Your task to perform on an android device: Go to wifi settings Image 0: 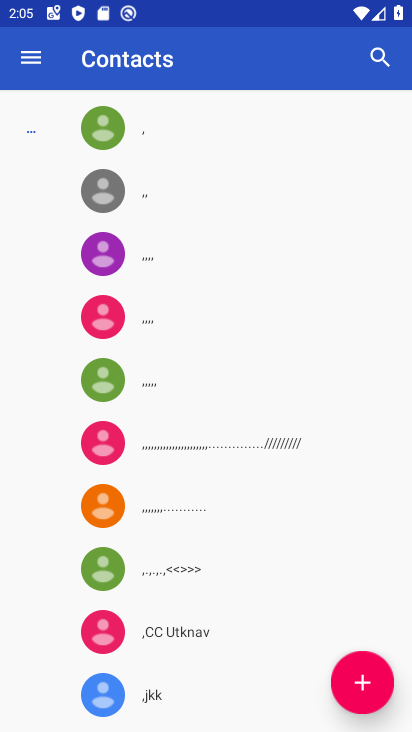
Step 0: press home button
Your task to perform on an android device: Go to wifi settings Image 1: 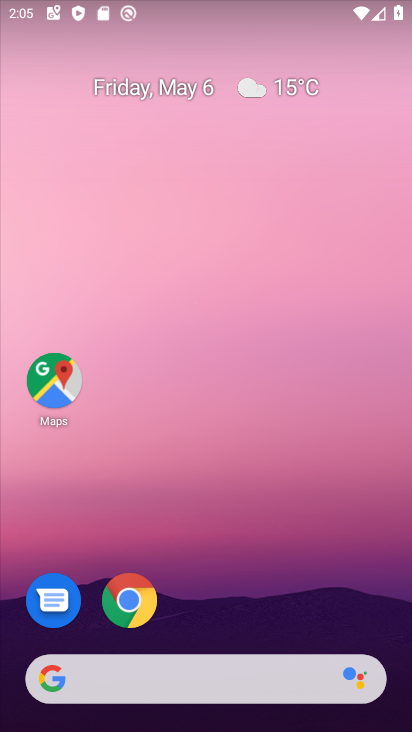
Step 1: drag from (262, 635) to (271, 35)
Your task to perform on an android device: Go to wifi settings Image 2: 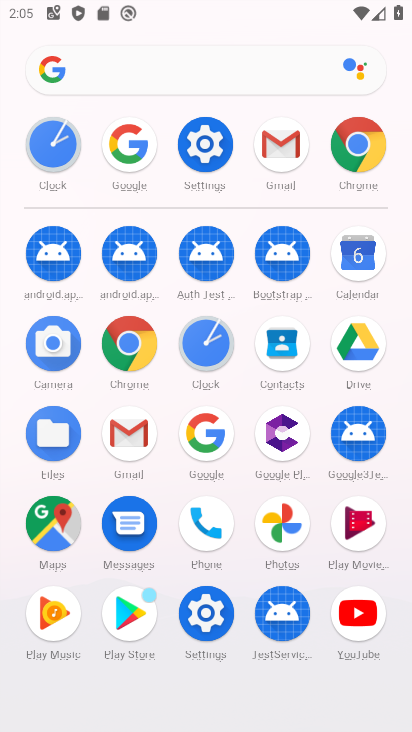
Step 2: click (208, 165)
Your task to perform on an android device: Go to wifi settings Image 3: 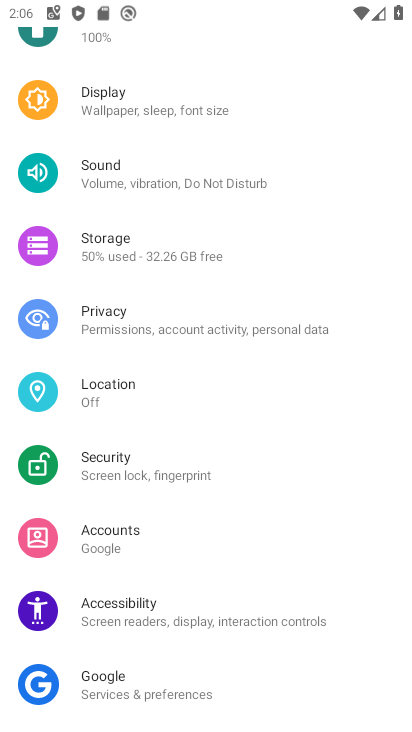
Step 3: drag from (30, 115) to (33, 444)
Your task to perform on an android device: Go to wifi settings Image 4: 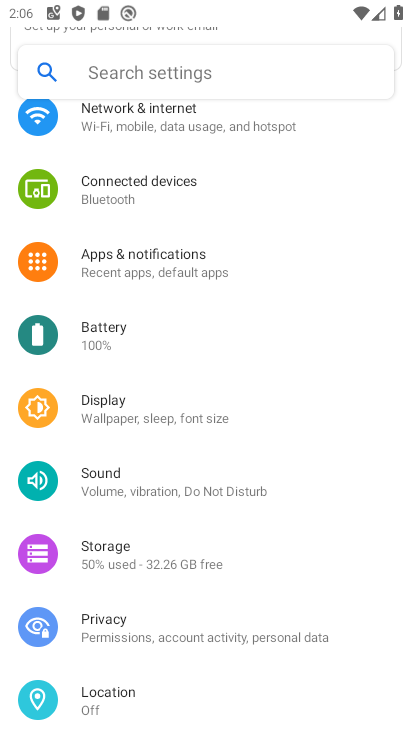
Step 4: drag from (102, 150) to (93, 523)
Your task to perform on an android device: Go to wifi settings Image 5: 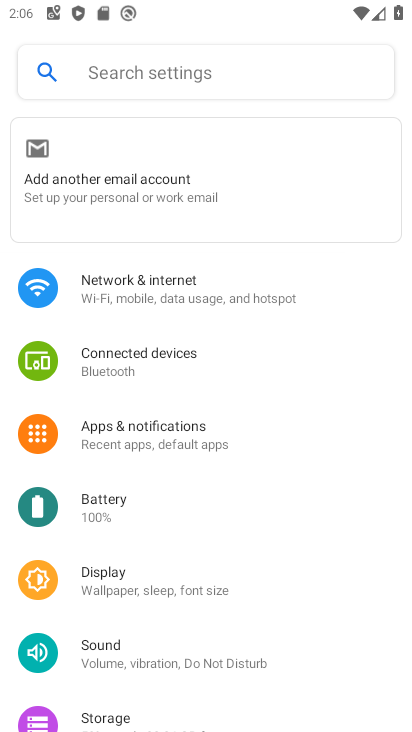
Step 5: click (114, 294)
Your task to perform on an android device: Go to wifi settings Image 6: 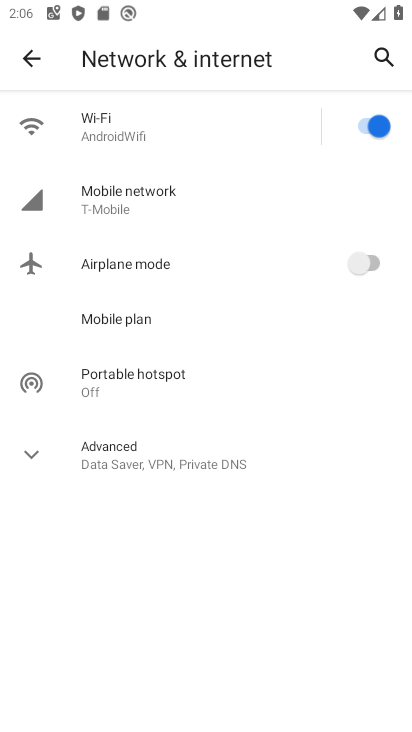
Step 6: click (176, 123)
Your task to perform on an android device: Go to wifi settings Image 7: 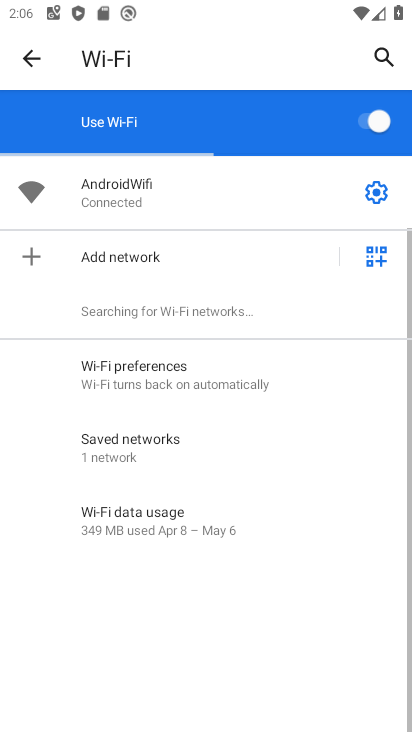
Step 7: task complete